Your task to perform on an android device: Open notification settings Image 0: 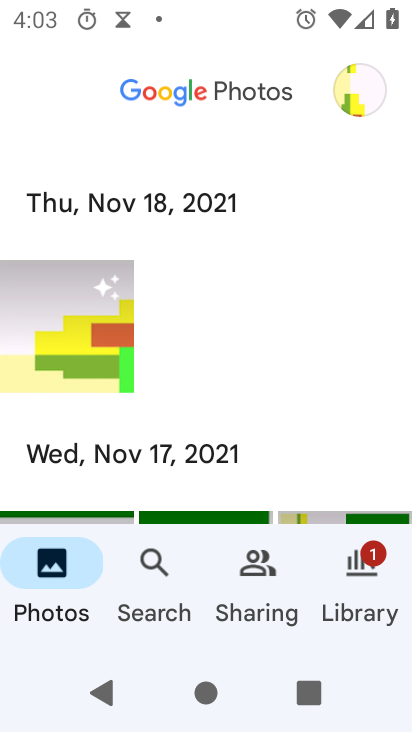
Step 0: press home button
Your task to perform on an android device: Open notification settings Image 1: 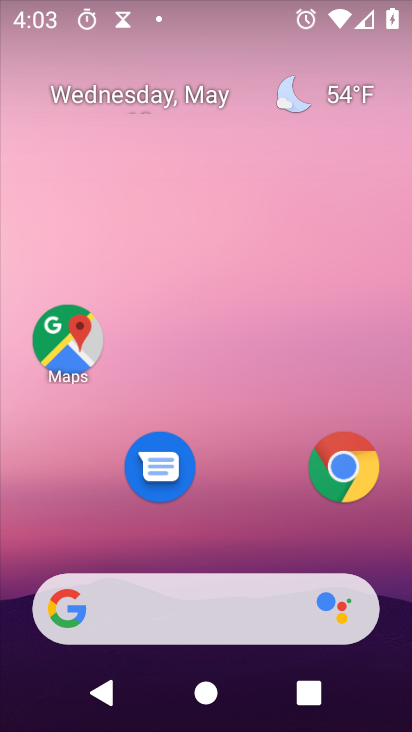
Step 1: drag from (262, 543) to (234, 25)
Your task to perform on an android device: Open notification settings Image 2: 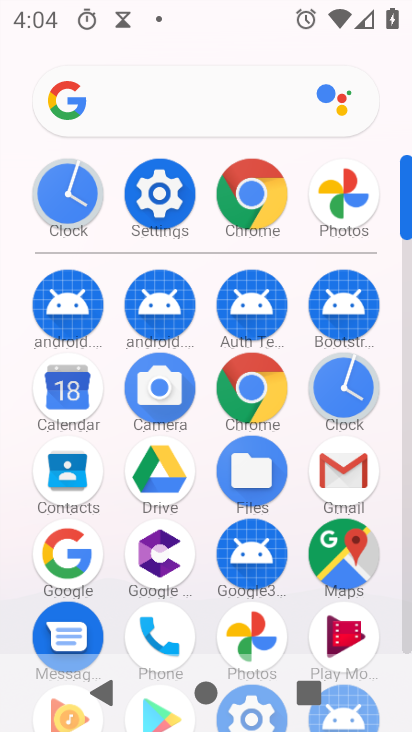
Step 2: click (162, 210)
Your task to perform on an android device: Open notification settings Image 3: 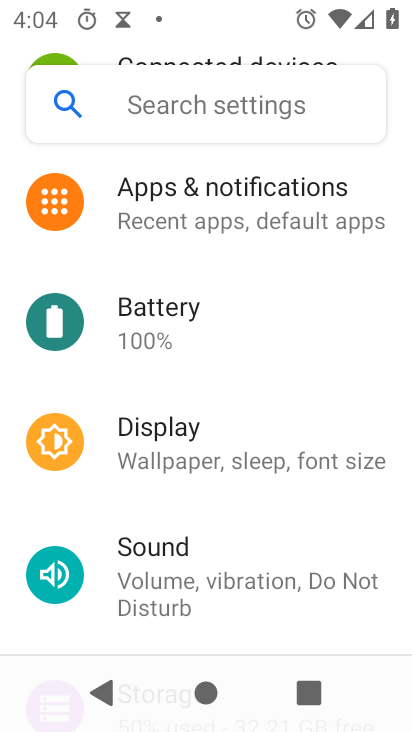
Step 3: click (238, 178)
Your task to perform on an android device: Open notification settings Image 4: 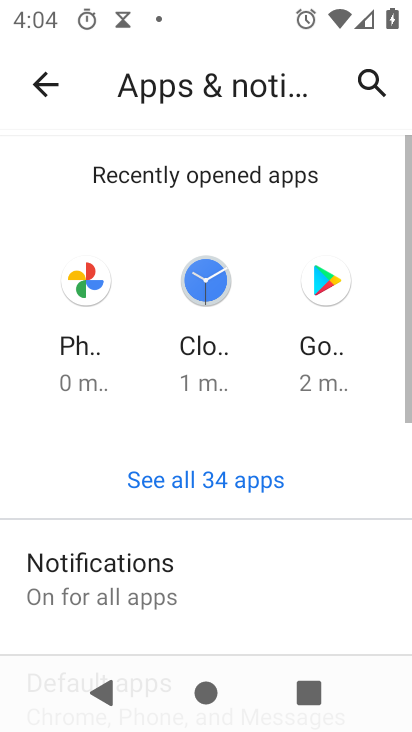
Step 4: click (271, 575)
Your task to perform on an android device: Open notification settings Image 5: 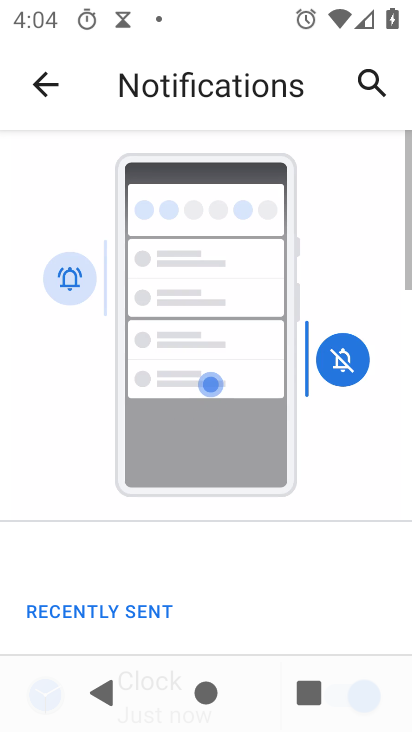
Step 5: task complete